Your task to perform on an android device: Go to CNN.com Image 0: 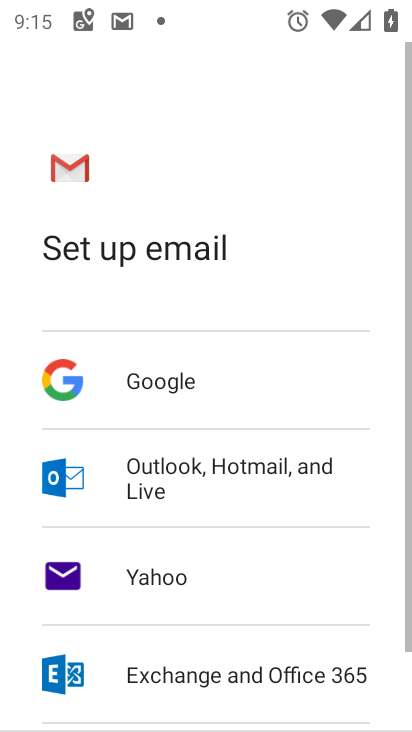
Step 0: press home button
Your task to perform on an android device: Go to CNN.com Image 1: 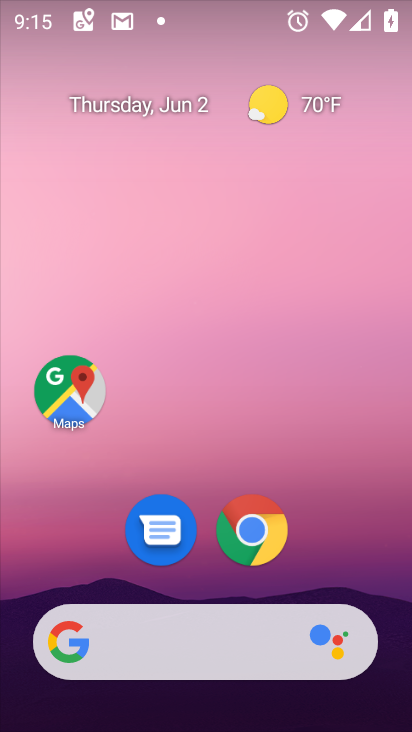
Step 1: drag from (169, 527) to (169, 393)
Your task to perform on an android device: Go to CNN.com Image 2: 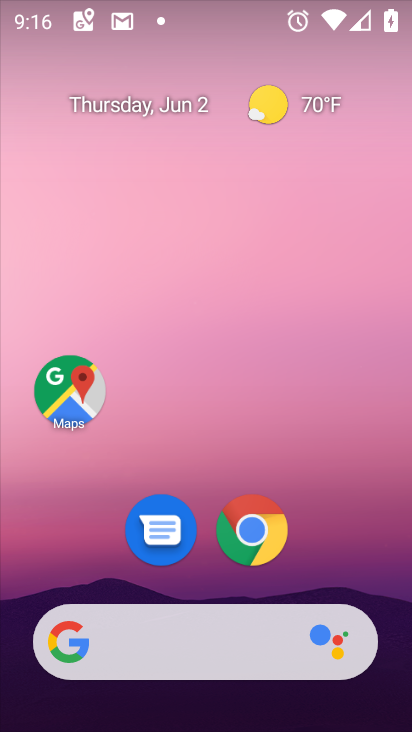
Step 2: drag from (192, 607) to (192, 251)
Your task to perform on an android device: Go to CNN.com Image 3: 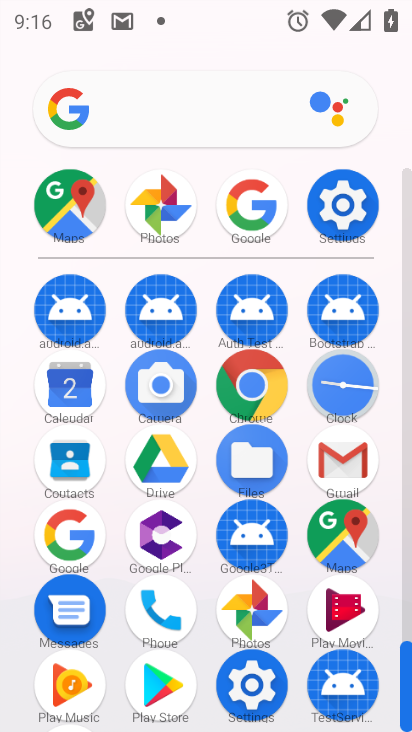
Step 3: click (64, 542)
Your task to perform on an android device: Go to CNN.com Image 4: 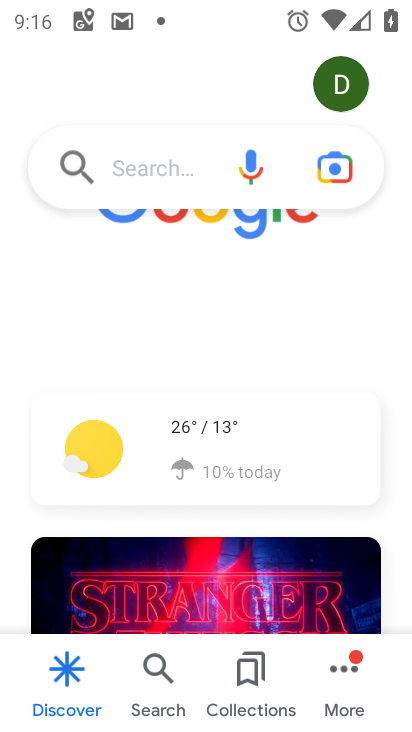
Step 4: click (86, 175)
Your task to perform on an android device: Go to CNN.com Image 5: 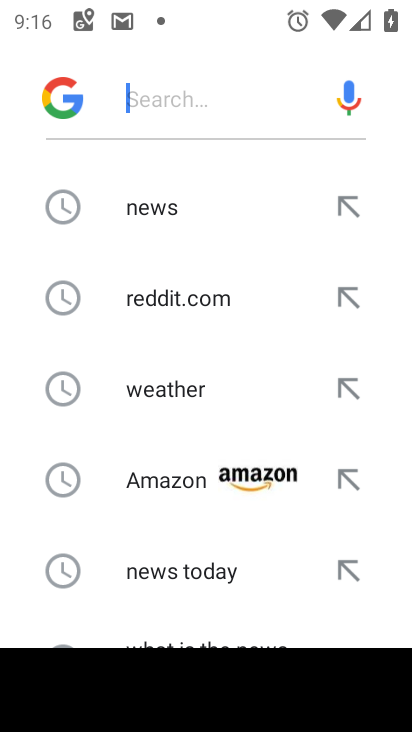
Step 5: drag from (142, 578) to (147, 306)
Your task to perform on an android device: Go to CNN.com Image 6: 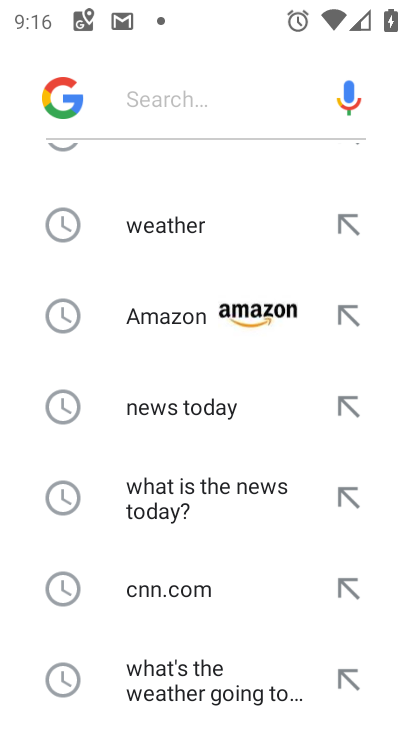
Step 6: click (194, 593)
Your task to perform on an android device: Go to CNN.com Image 7: 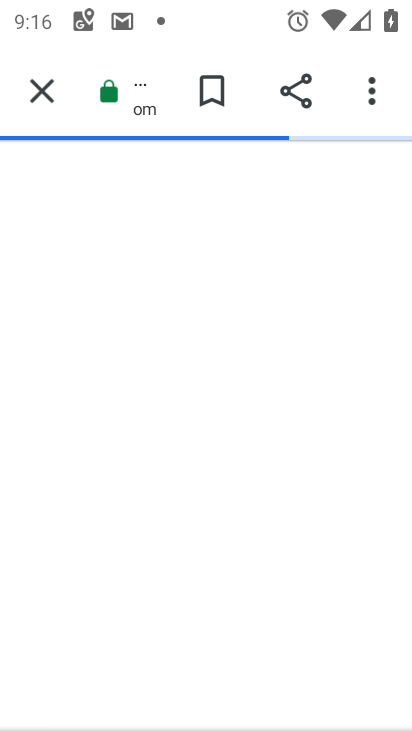
Step 7: task complete